Your task to perform on an android device: turn on the 24-hour format for clock Image 0: 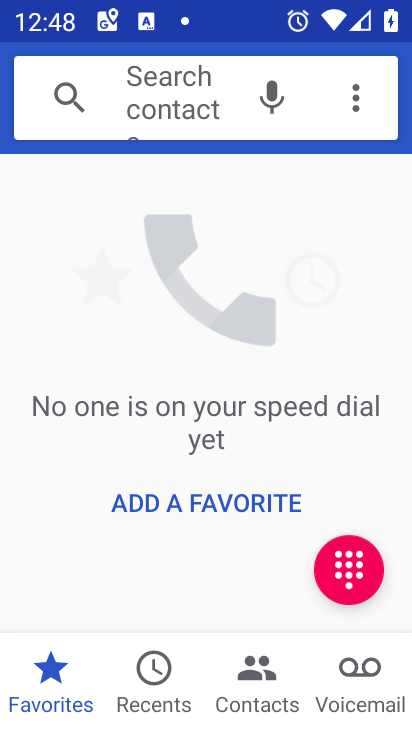
Step 0: press home button
Your task to perform on an android device: turn on the 24-hour format for clock Image 1: 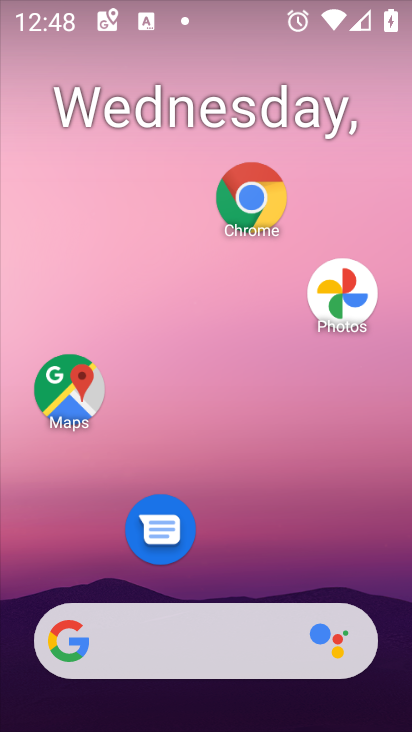
Step 1: drag from (226, 554) to (315, 68)
Your task to perform on an android device: turn on the 24-hour format for clock Image 2: 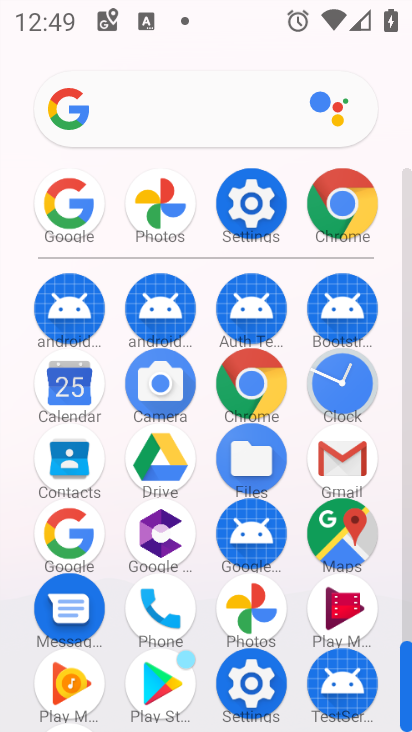
Step 2: click (352, 368)
Your task to perform on an android device: turn on the 24-hour format for clock Image 3: 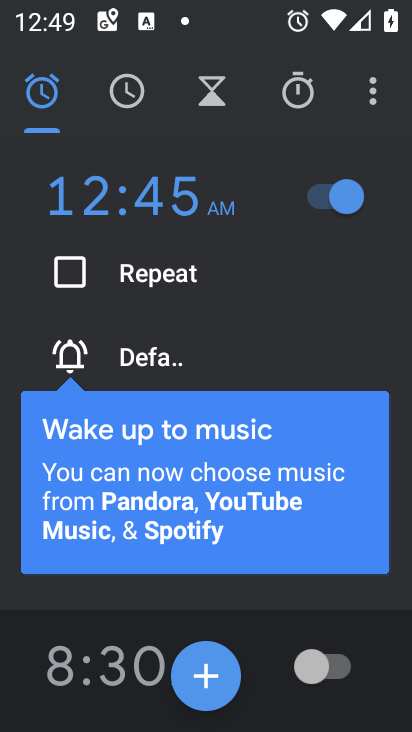
Step 3: click (366, 96)
Your task to perform on an android device: turn on the 24-hour format for clock Image 4: 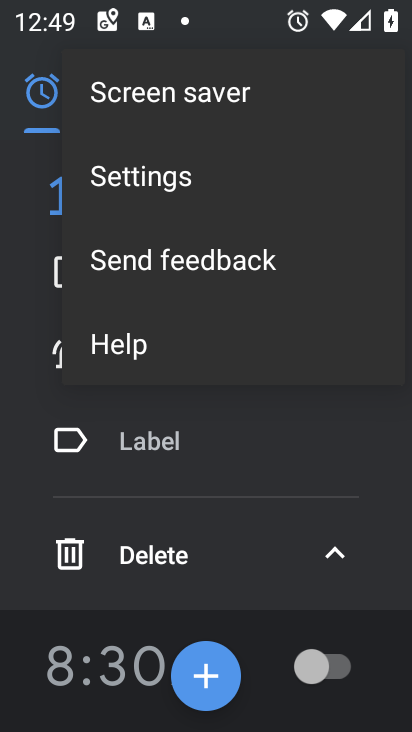
Step 4: click (176, 185)
Your task to perform on an android device: turn on the 24-hour format for clock Image 5: 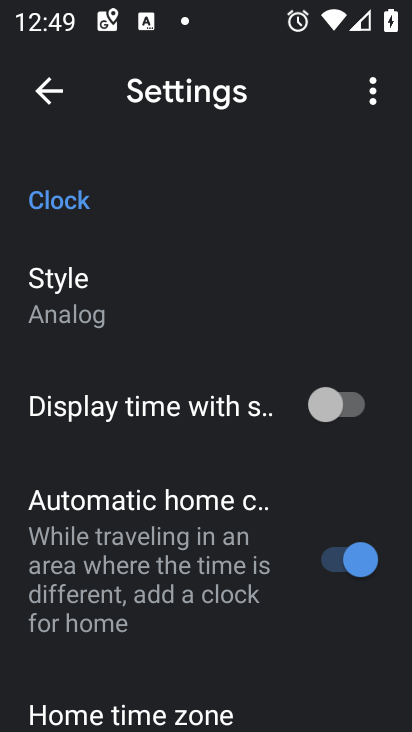
Step 5: drag from (131, 597) to (275, 129)
Your task to perform on an android device: turn on the 24-hour format for clock Image 6: 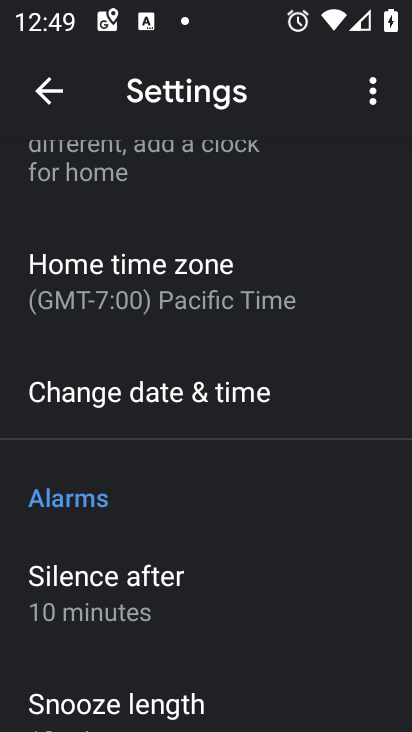
Step 6: click (222, 403)
Your task to perform on an android device: turn on the 24-hour format for clock Image 7: 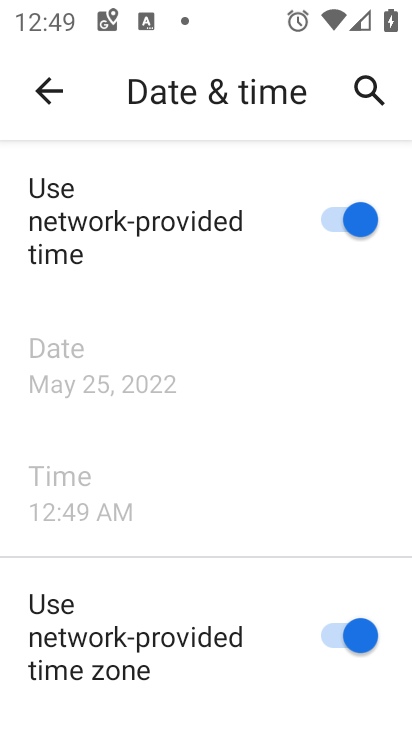
Step 7: task complete